Your task to perform on an android device: Show me productivity apps on the Play Store Image 0: 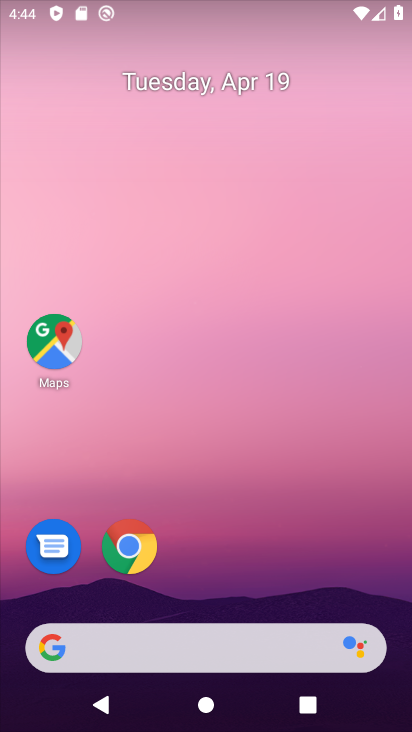
Step 0: drag from (311, 531) to (317, 25)
Your task to perform on an android device: Show me productivity apps on the Play Store Image 1: 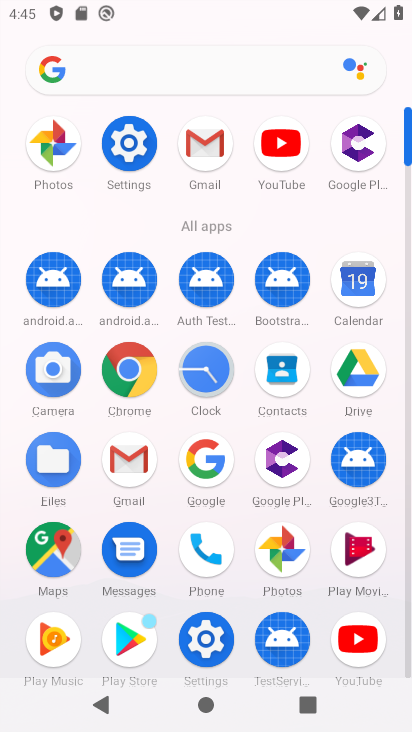
Step 1: click (129, 640)
Your task to perform on an android device: Show me productivity apps on the Play Store Image 2: 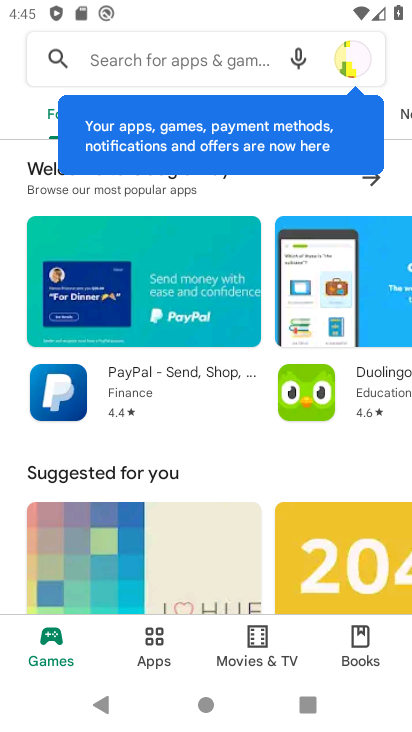
Step 2: click (194, 72)
Your task to perform on an android device: Show me productivity apps on the Play Store Image 3: 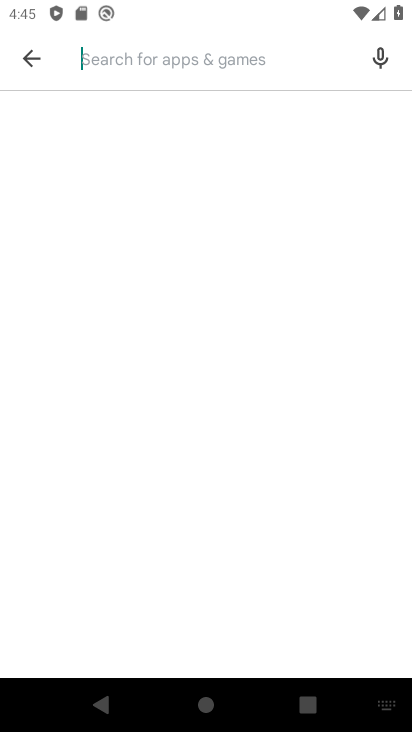
Step 3: type "productivity apps"
Your task to perform on an android device: Show me productivity apps on the Play Store Image 4: 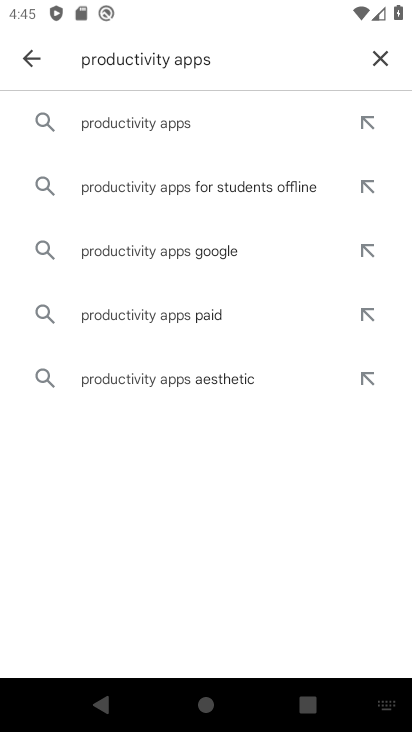
Step 4: click (121, 126)
Your task to perform on an android device: Show me productivity apps on the Play Store Image 5: 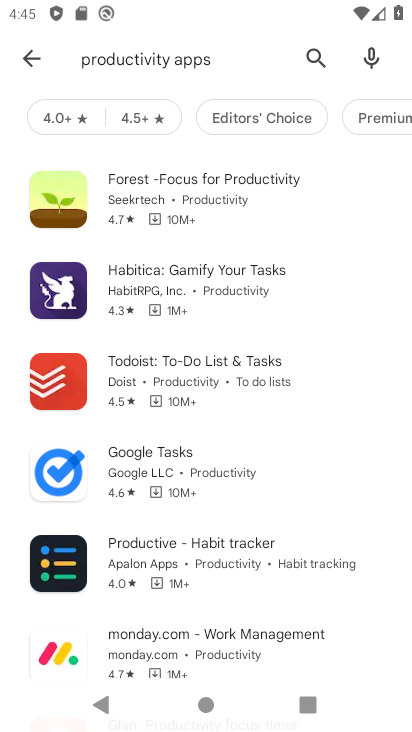
Step 5: task complete